Your task to perform on an android device: snooze an email in the gmail app Image 0: 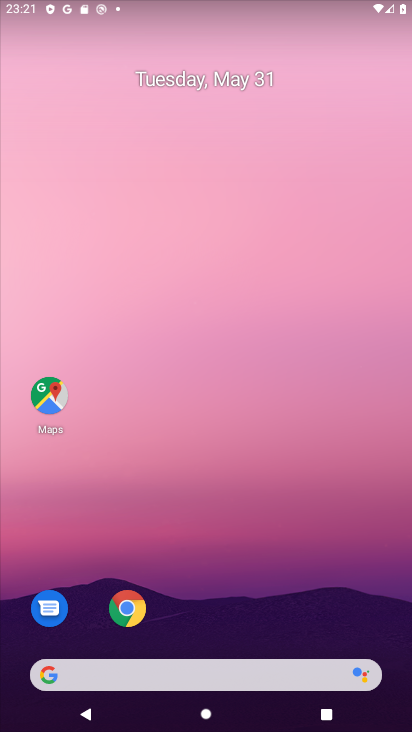
Step 0: drag from (310, 528) to (276, 58)
Your task to perform on an android device: snooze an email in the gmail app Image 1: 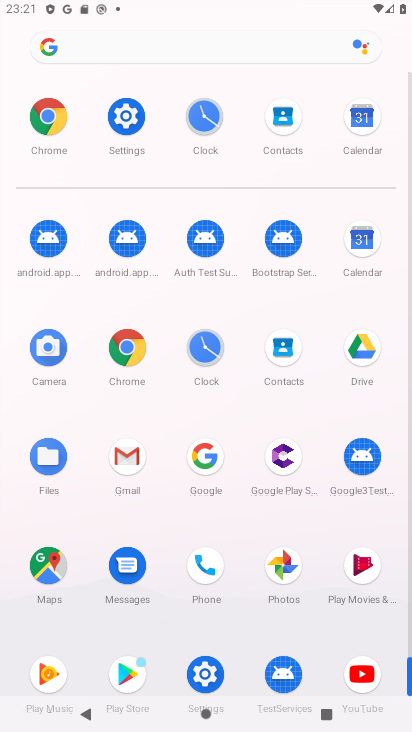
Step 1: click (138, 467)
Your task to perform on an android device: snooze an email in the gmail app Image 2: 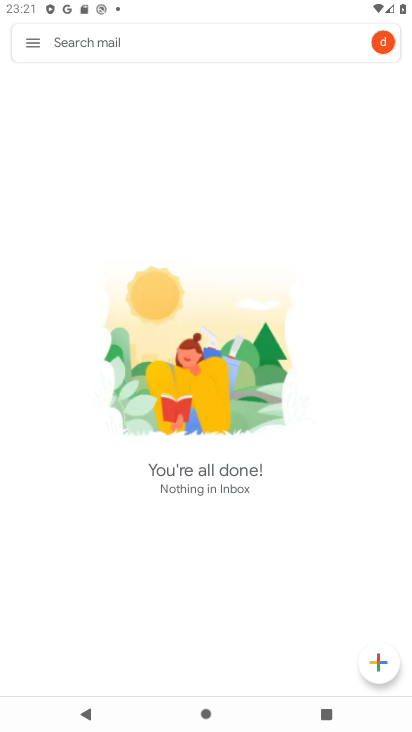
Step 2: click (17, 42)
Your task to perform on an android device: snooze an email in the gmail app Image 3: 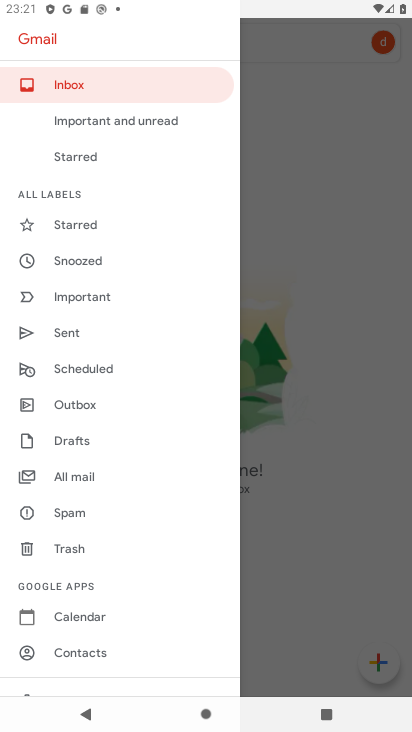
Step 3: task complete